Your task to perform on an android device: install app "Microsoft Excel" Image 0: 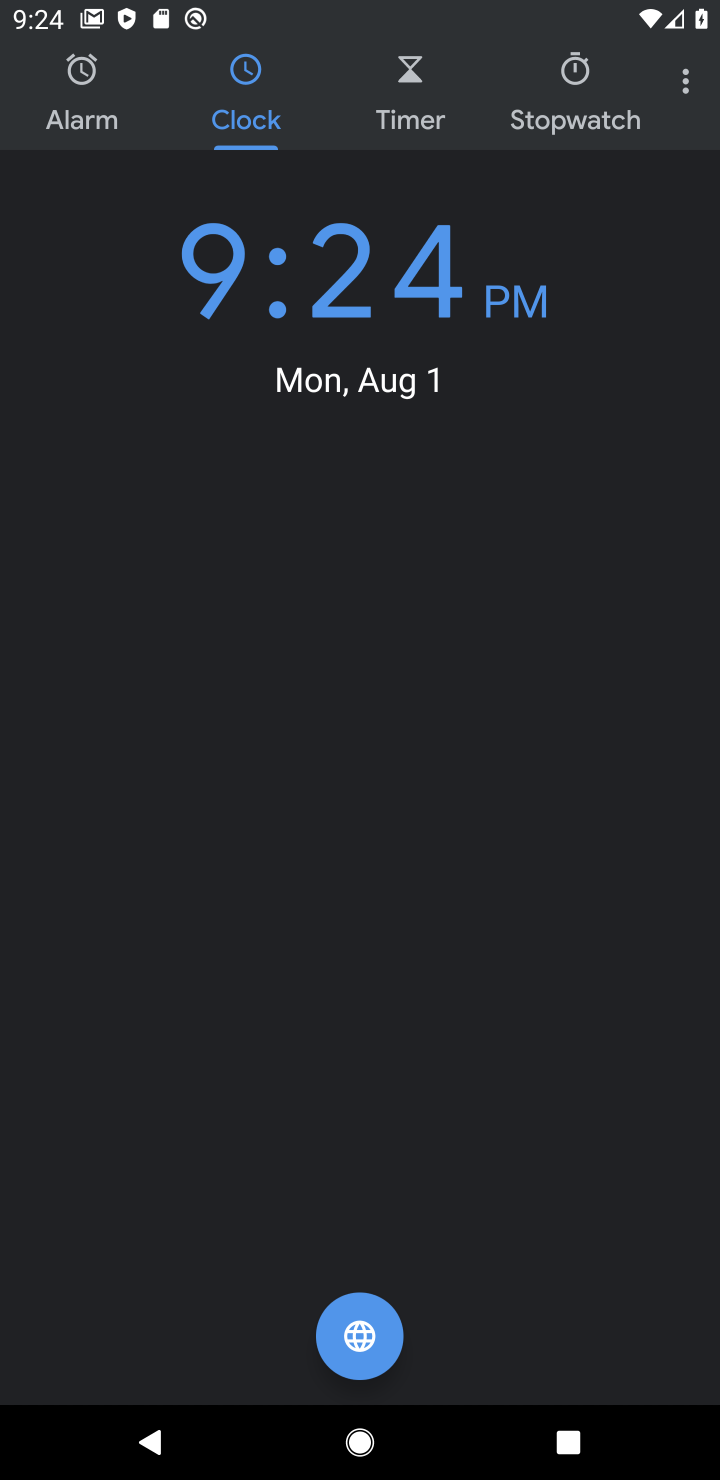
Step 0: press back button
Your task to perform on an android device: install app "Microsoft Excel" Image 1: 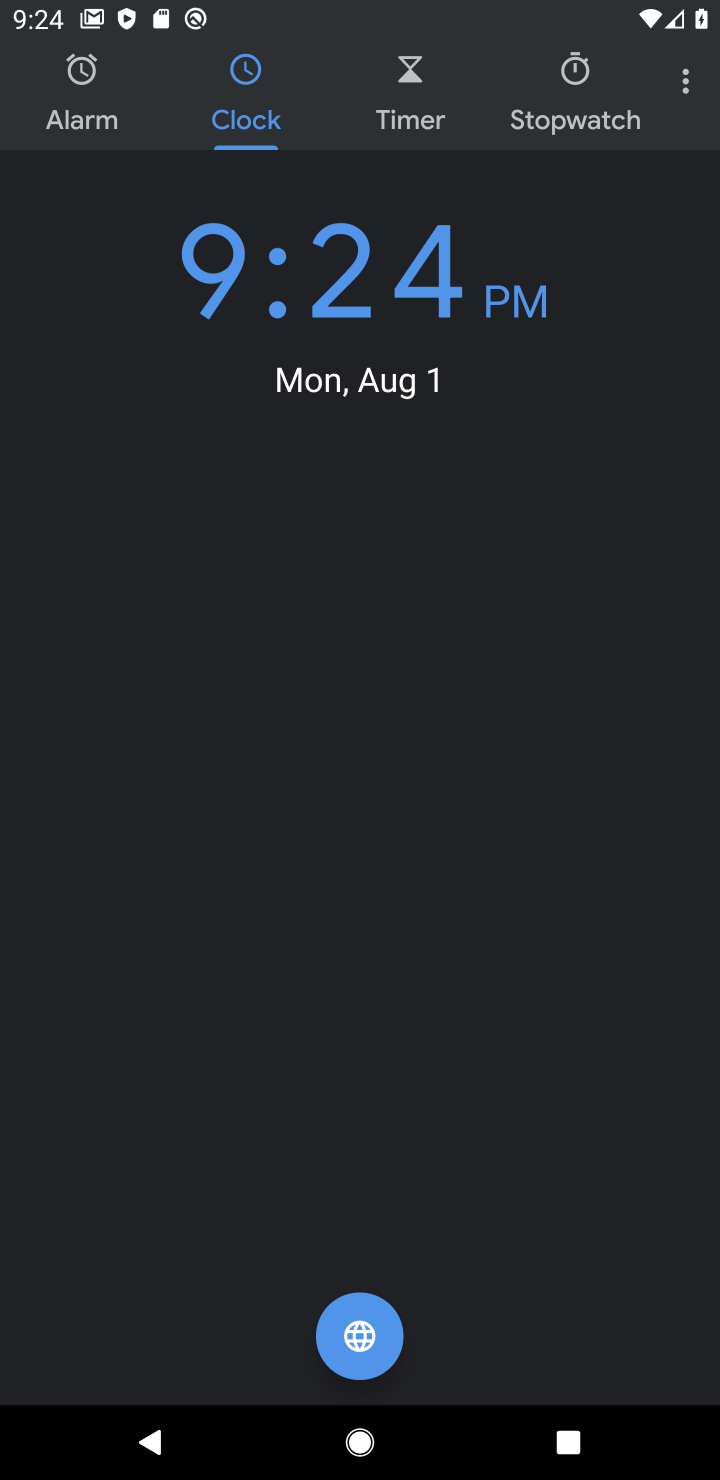
Step 1: press back button
Your task to perform on an android device: install app "Microsoft Excel" Image 2: 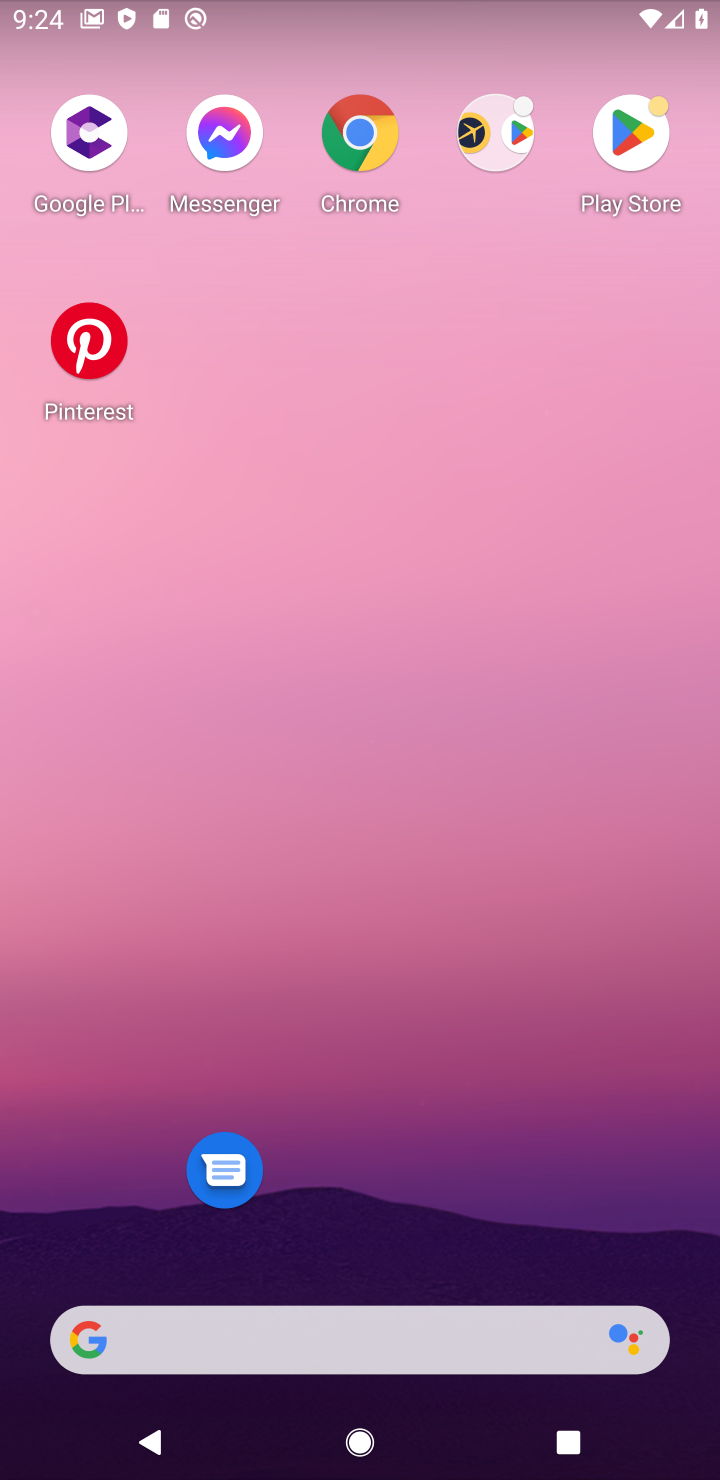
Step 2: drag from (336, 943) to (271, 54)
Your task to perform on an android device: install app "Microsoft Excel" Image 3: 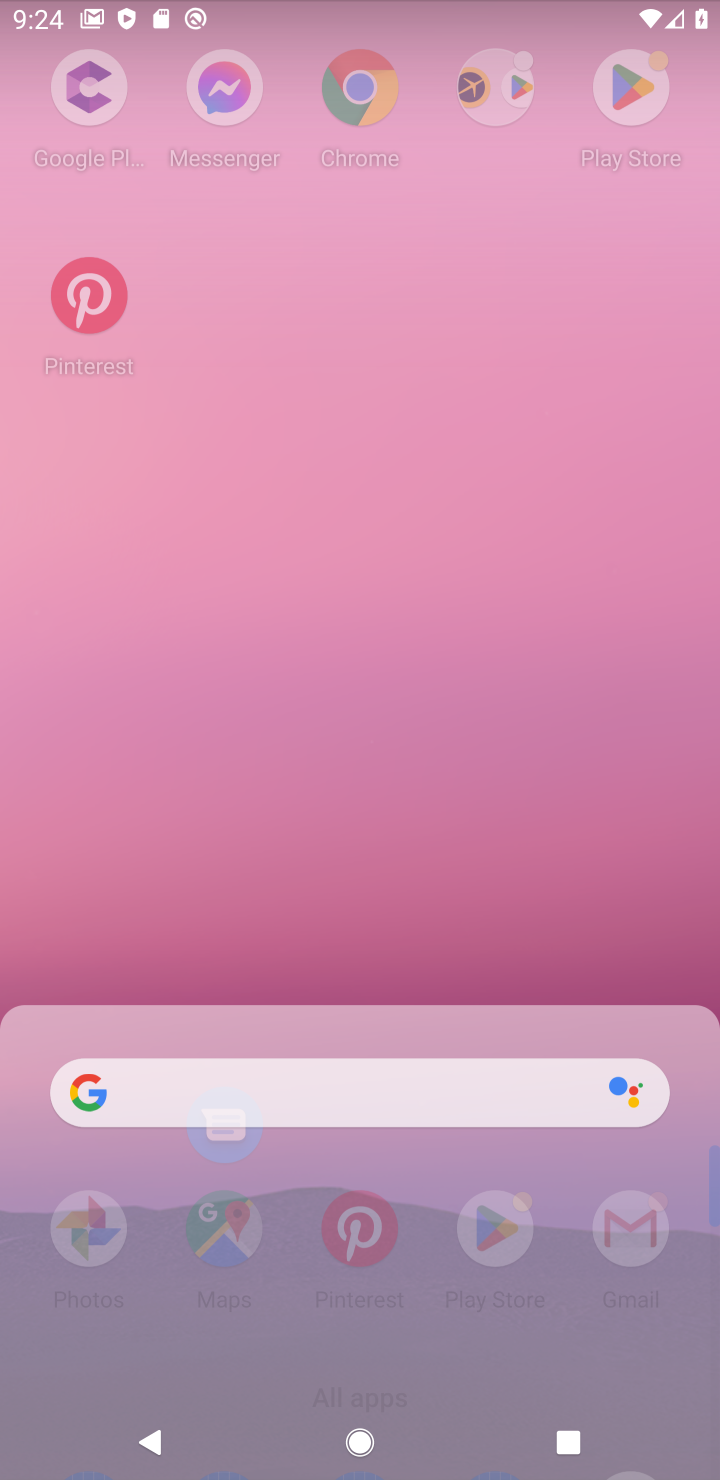
Step 3: click (273, 65)
Your task to perform on an android device: install app "Microsoft Excel" Image 4: 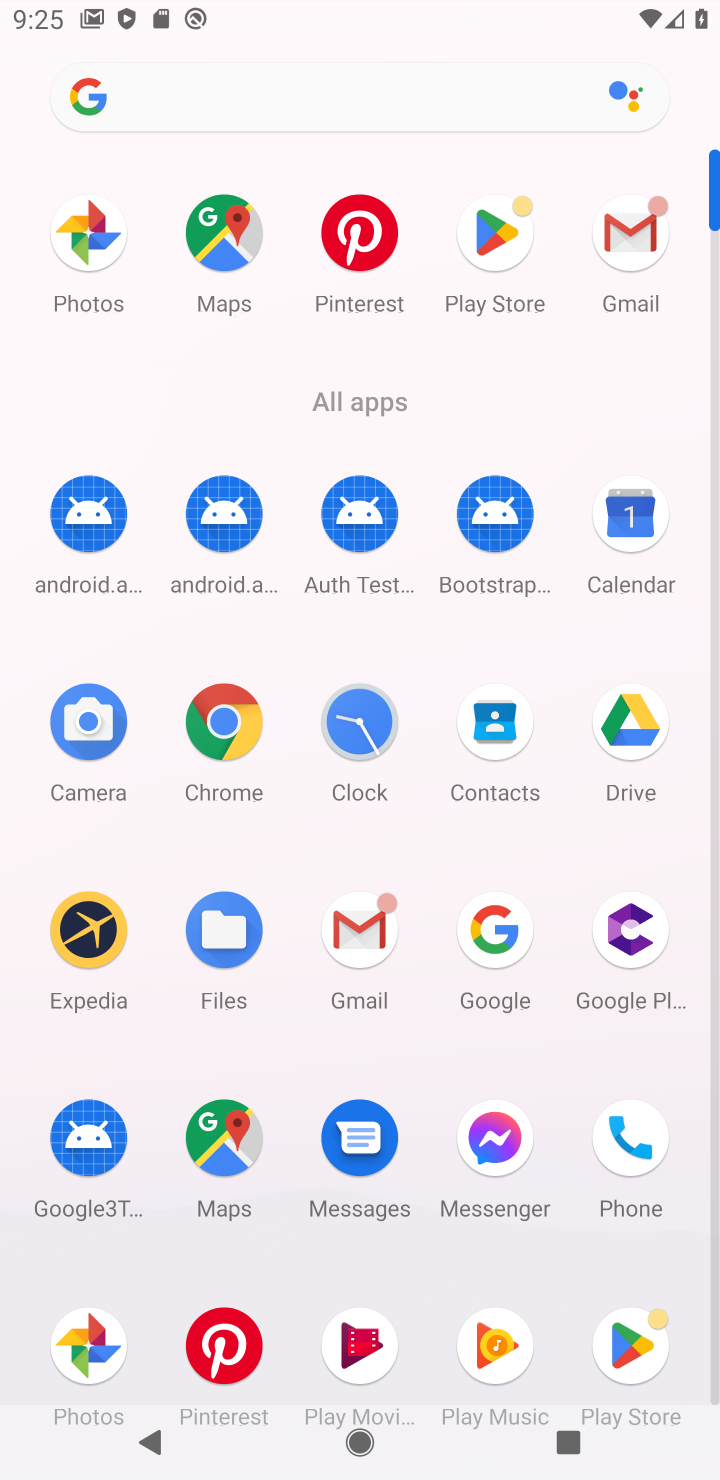
Step 4: drag from (458, 884) to (309, 411)
Your task to perform on an android device: install app "Microsoft Excel" Image 5: 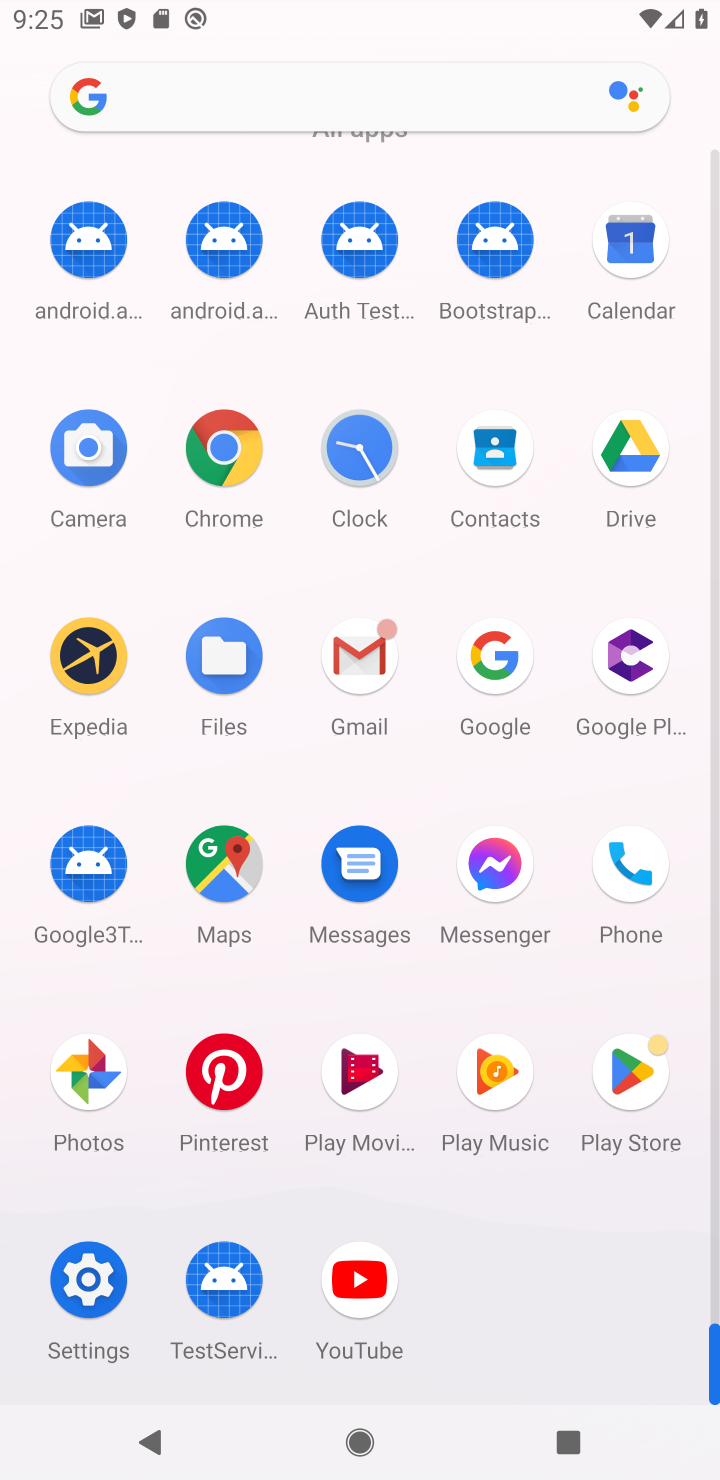
Step 5: click (351, 1188)
Your task to perform on an android device: install app "Microsoft Excel" Image 6: 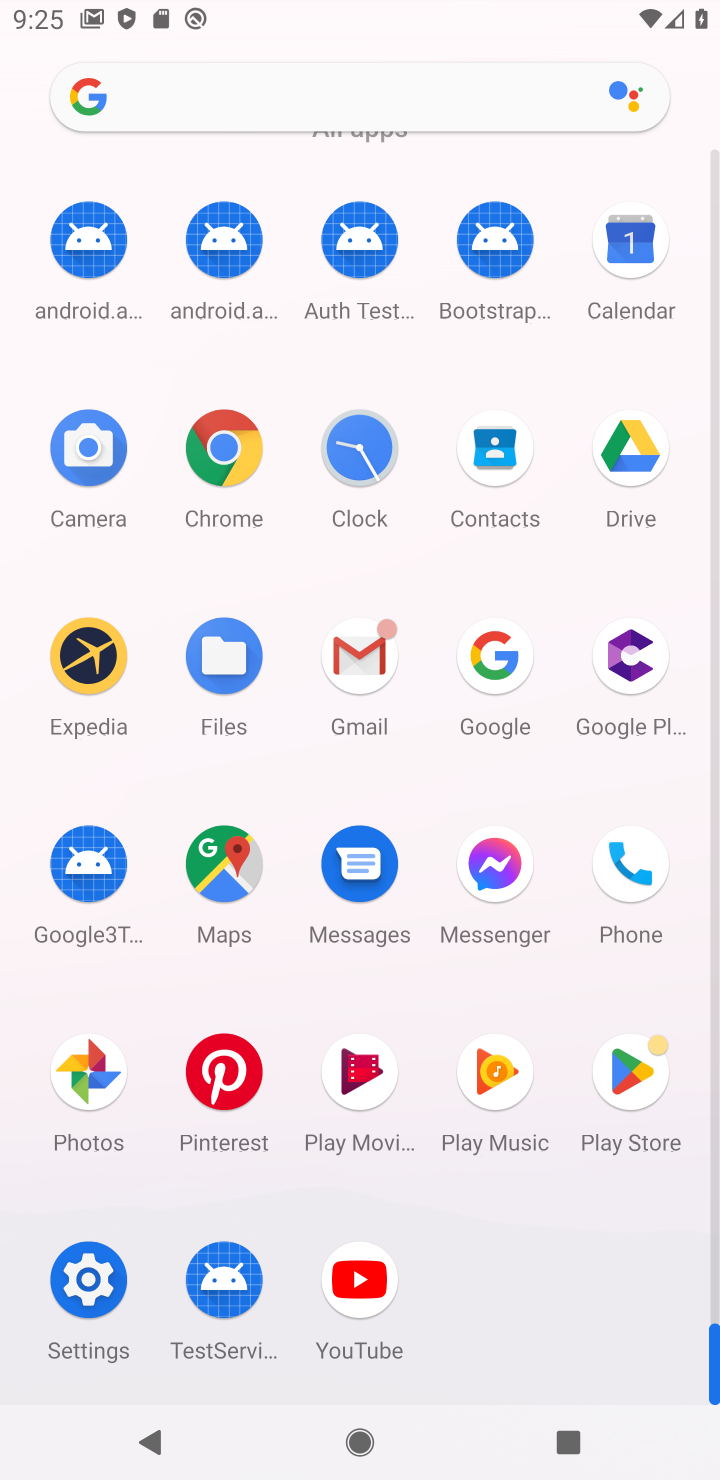
Step 6: click (621, 1074)
Your task to perform on an android device: install app "Microsoft Excel" Image 7: 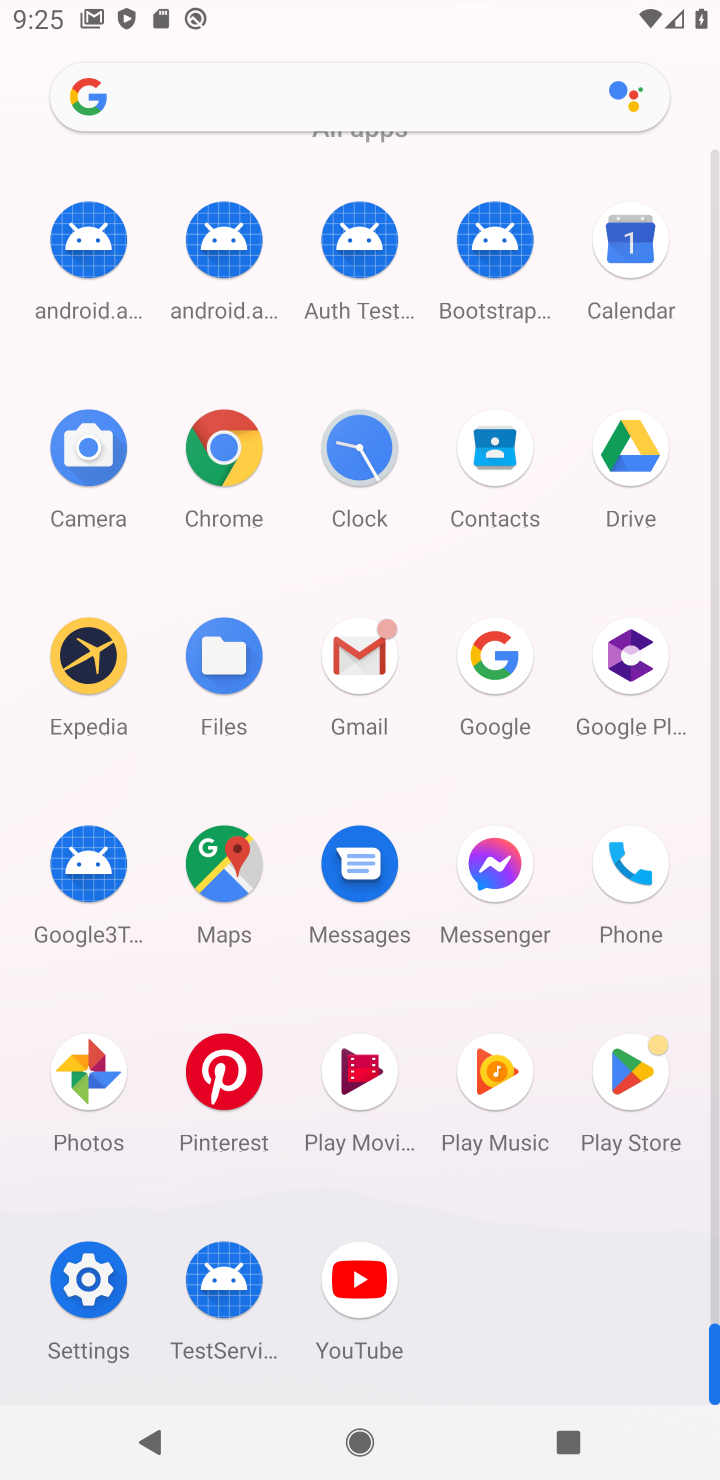
Step 7: click (621, 1074)
Your task to perform on an android device: install app "Microsoft Excel" Image 8: 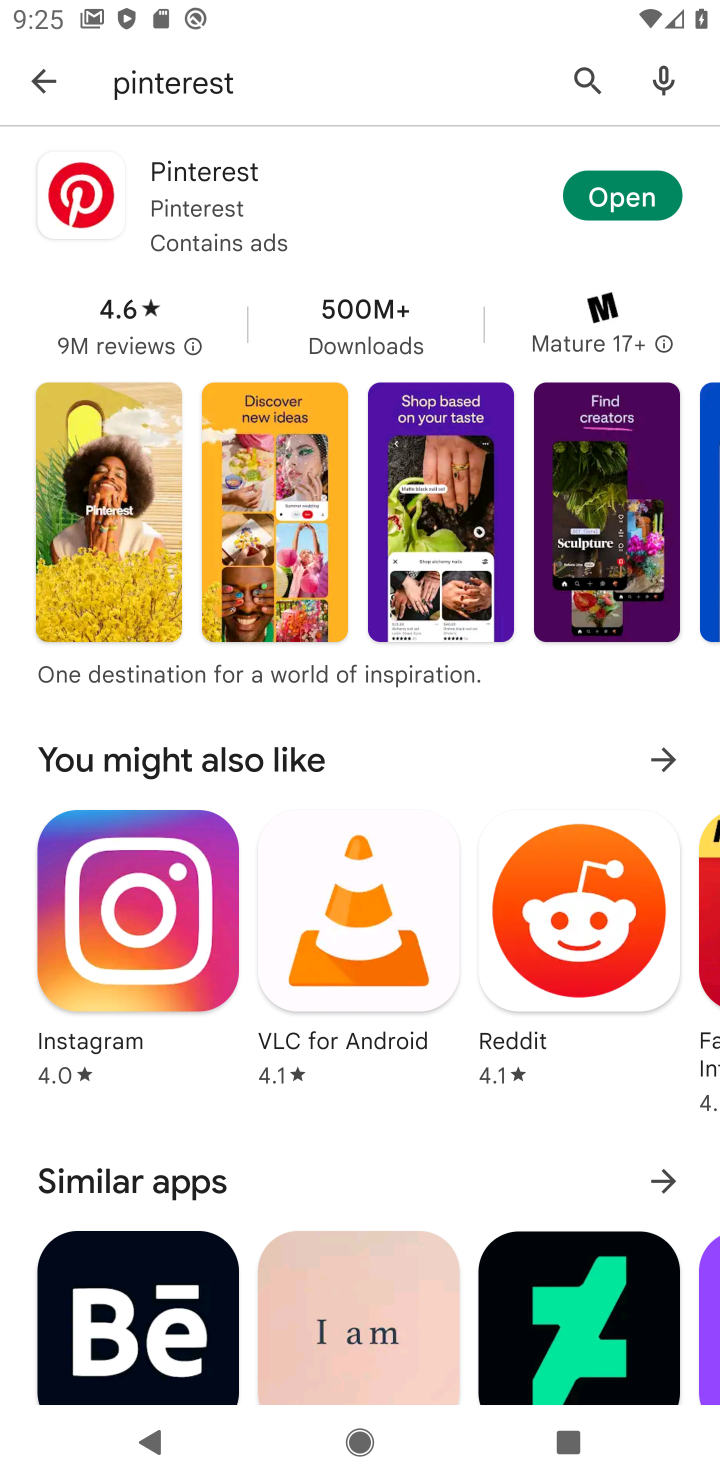
Step 8: drag from (462, 530) to (464, 905)
Your task to perform on an android device: install app "Microsoft Excel" Image 9: 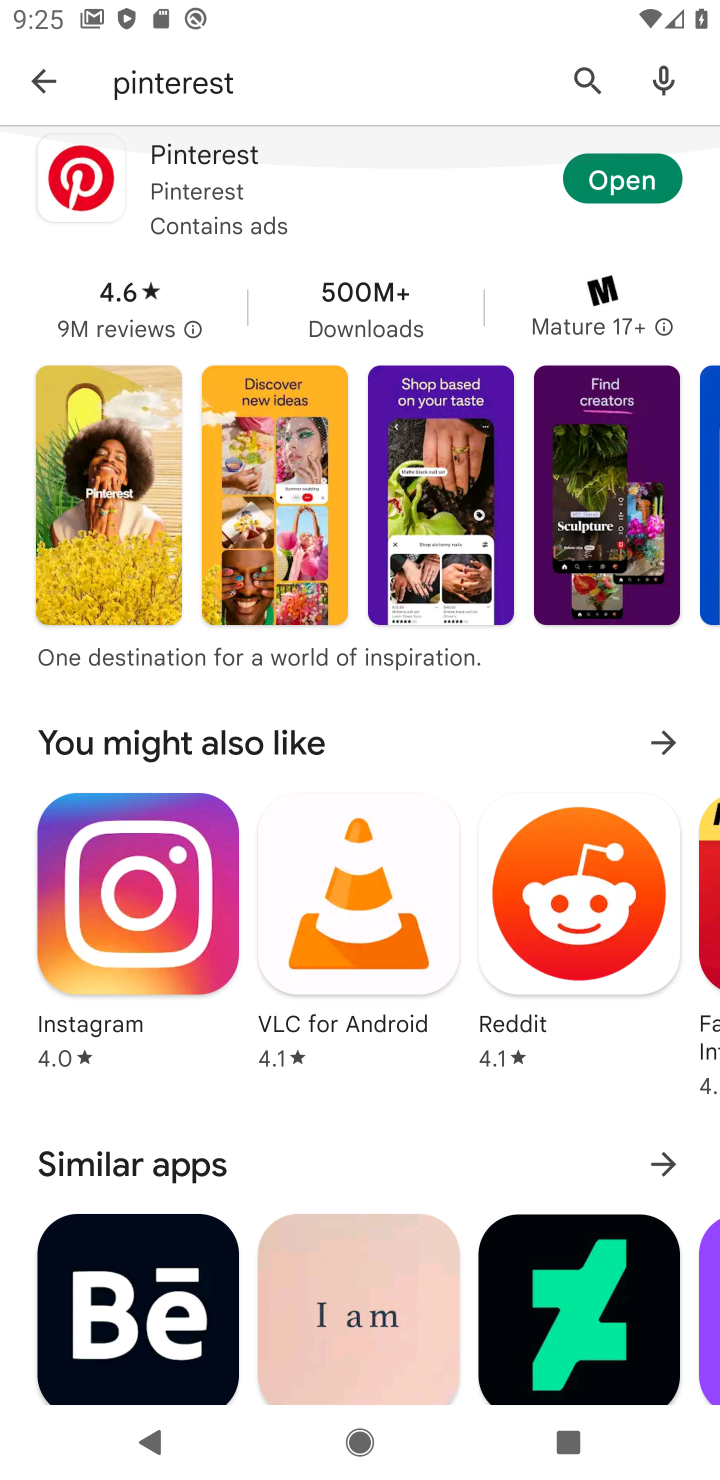
Step 9: click (56, 72)
Your task to perform on an android device: install app "Microsoft Excel" Image 10: 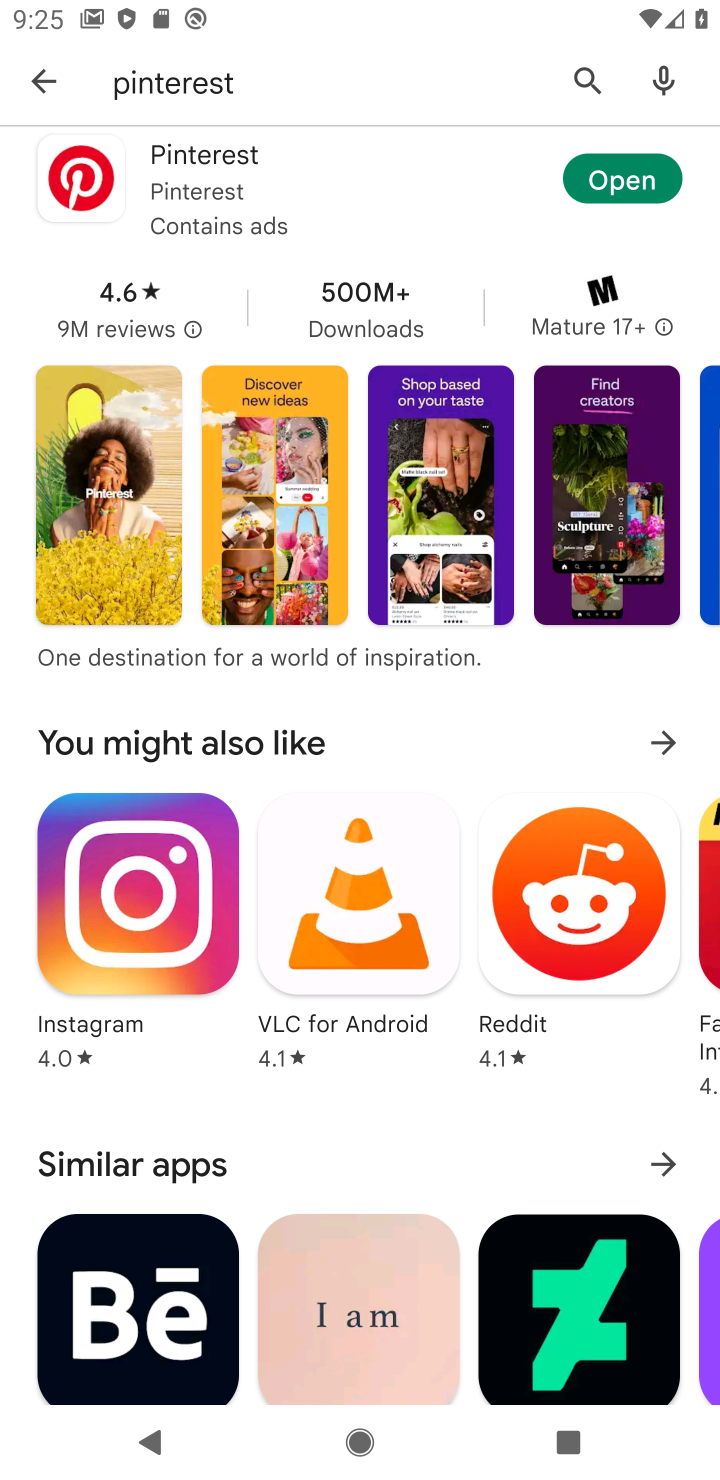
Step 10: click (305, 87)
Your task to perform on an android device: install app "Microsoft Excel" Image 11: 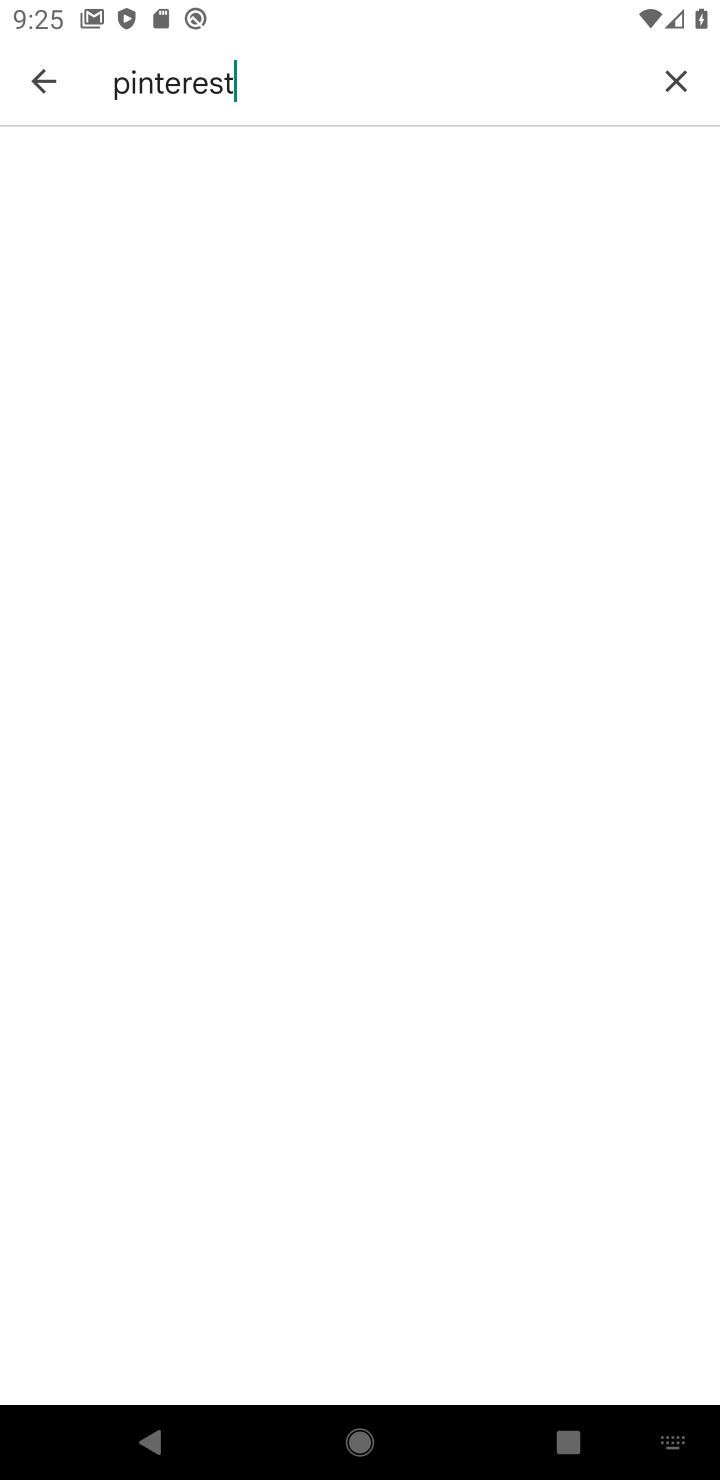
Step 11: click (675, 74)
Your task to perform on an android device: install app "Microsoft Excel" Image 12: 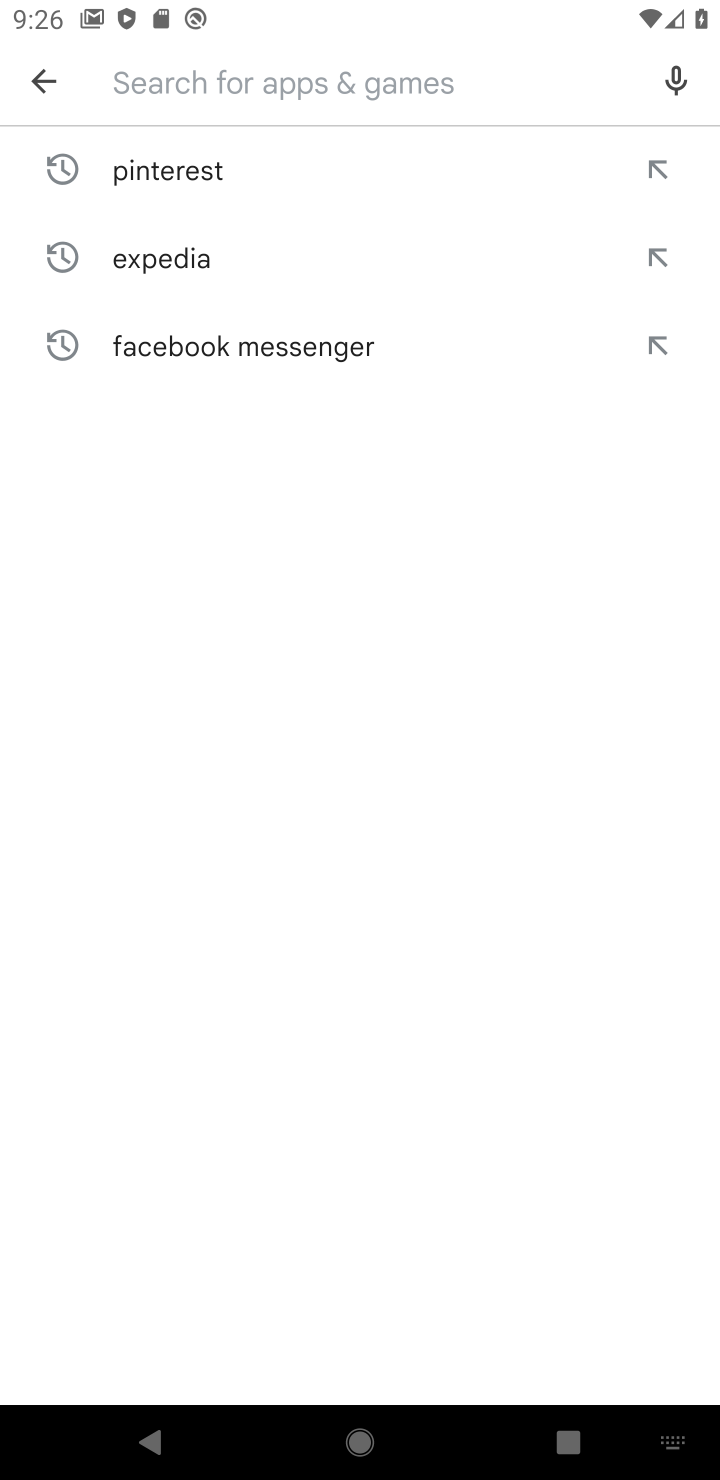
Step 12: type "Microsoft excel"
Your task to perform on an android device: install app "Microsoft Excel" Image 13: 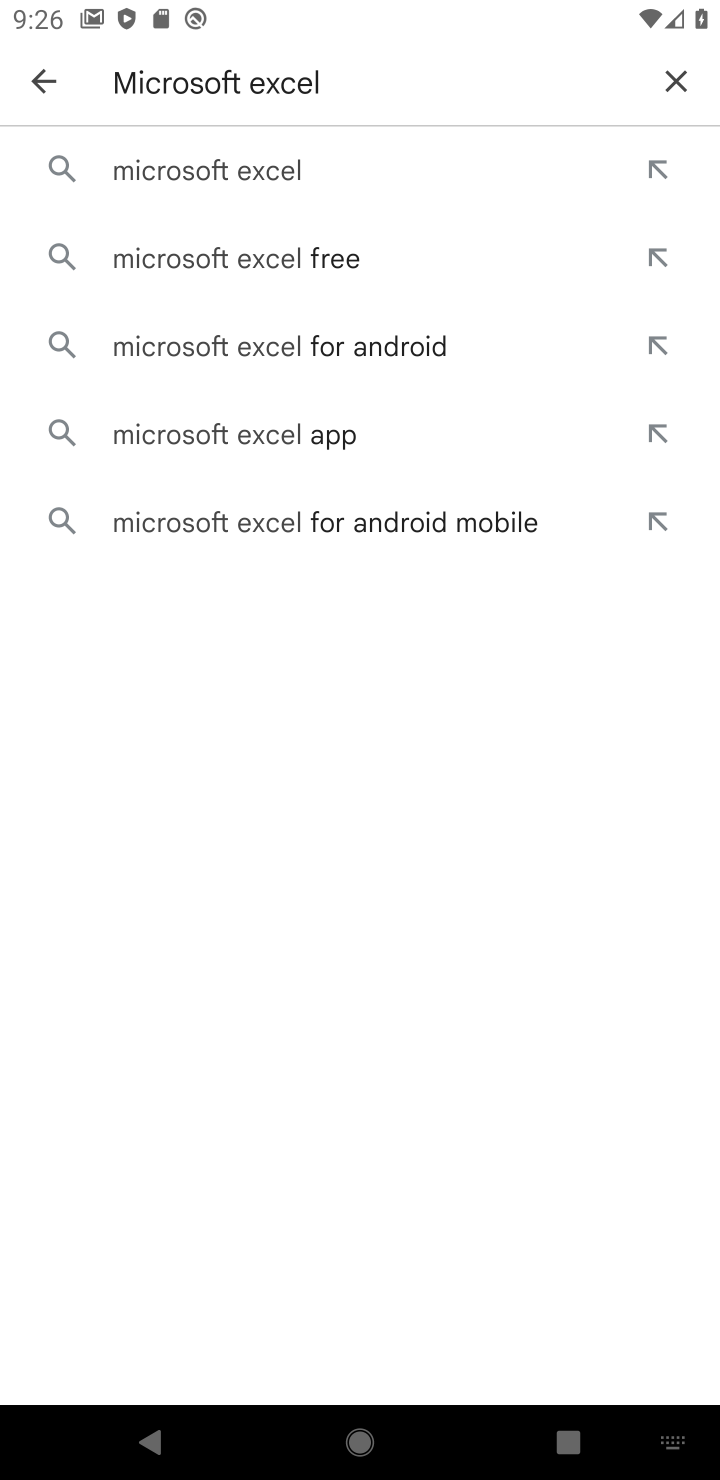
Step 13: click (131, 177)
Your task to perform on an android device: install app "Microsoft Excel" Image 14: 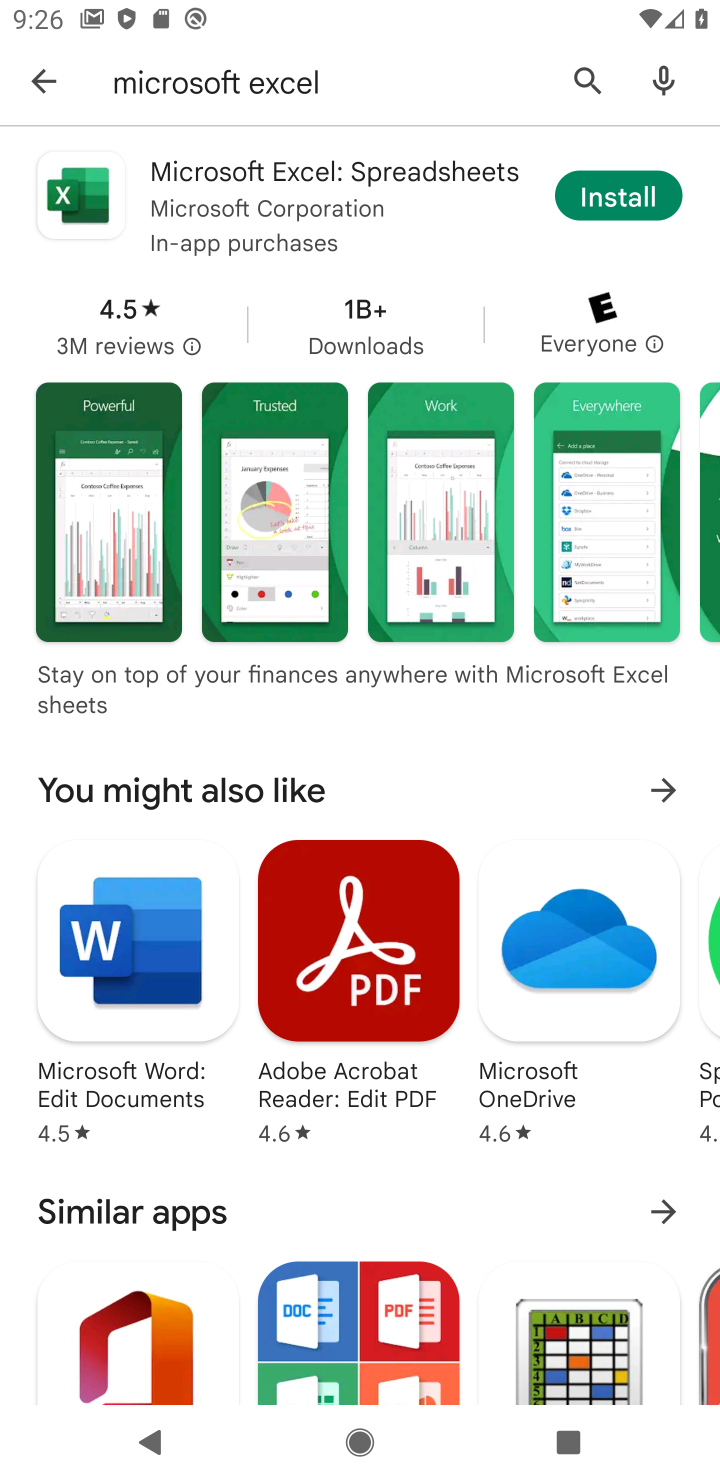
Step 14: click (615, 199)
Your task to perform on an android device: install app "Microsoft Excel" Image 15: 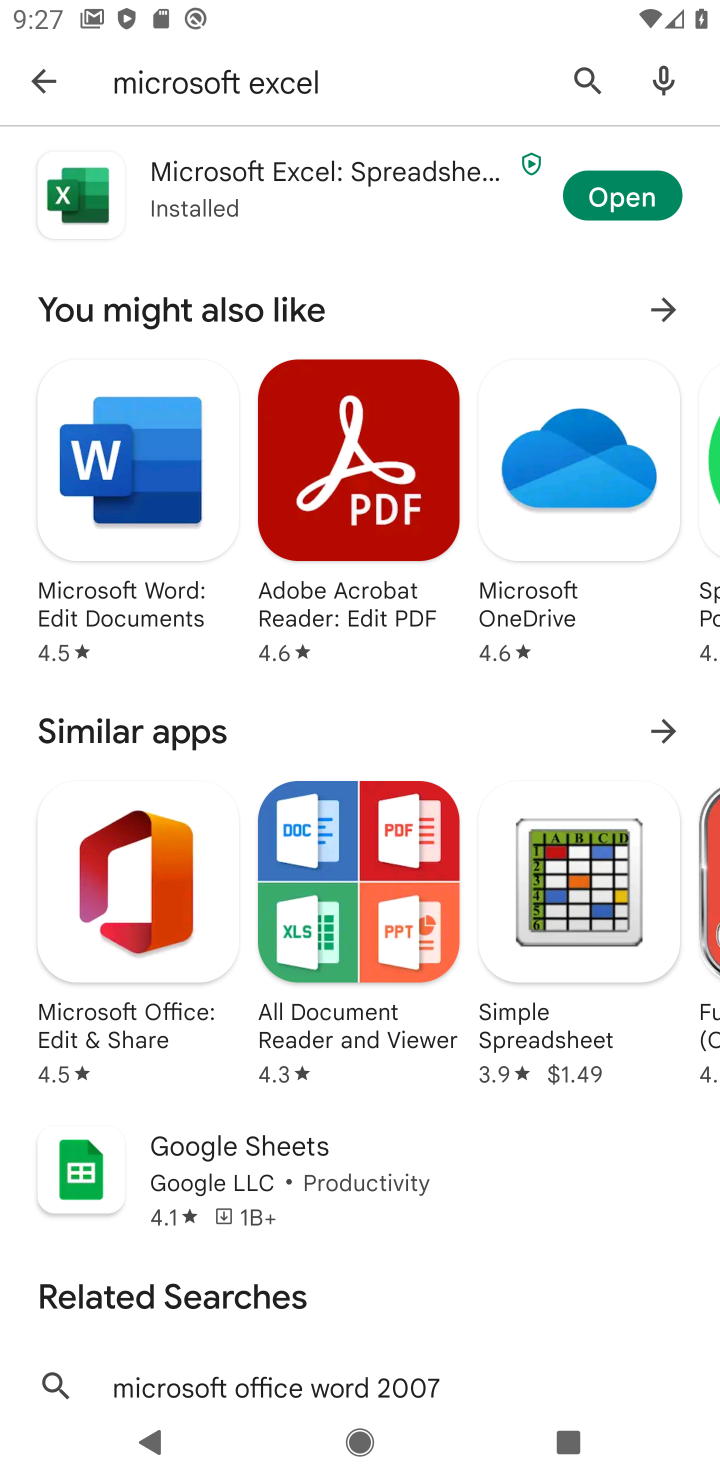
Step 15: click (602, 212)
Your task to perform on an android device: install app "Microsoft Excel" Image 16: 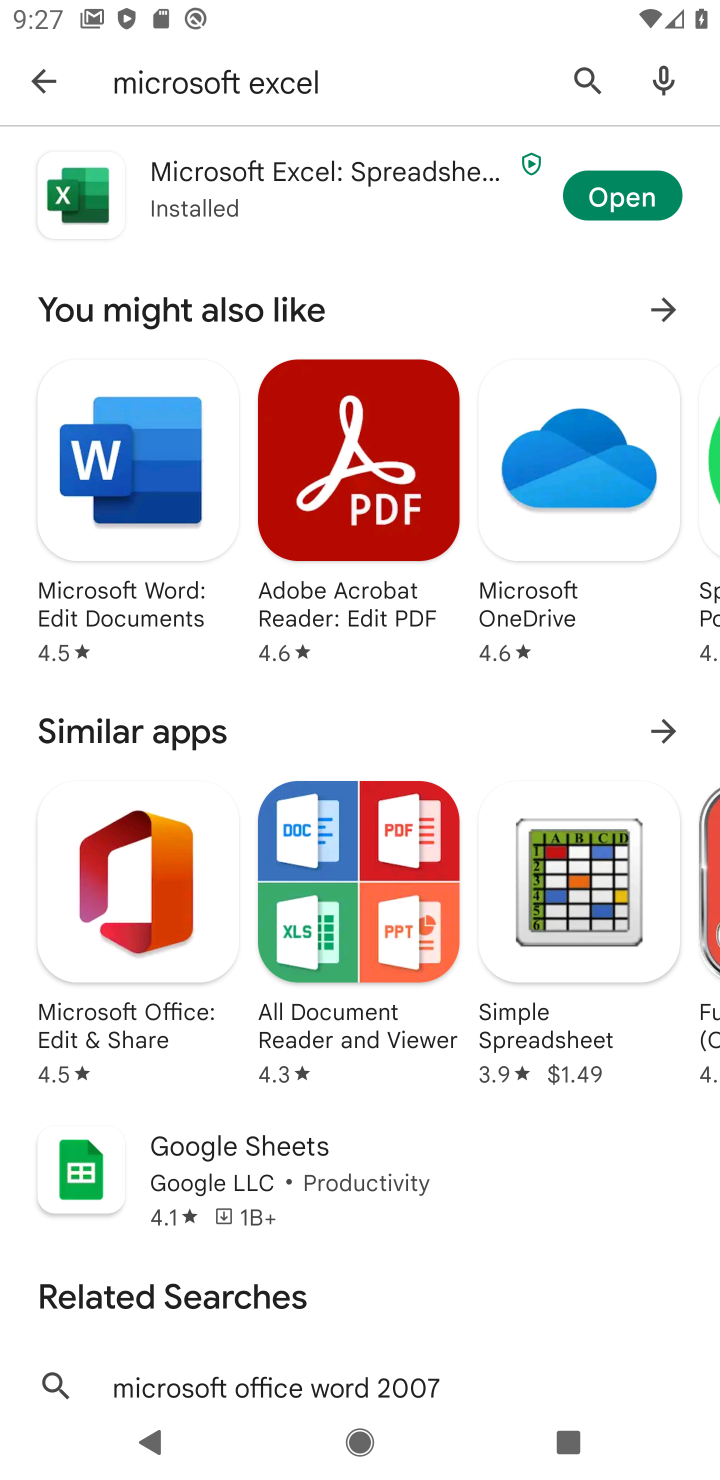
Step 16: click (602, 212)
Your task to perform on an android device: install app "Microsoft Excel" Image 17: 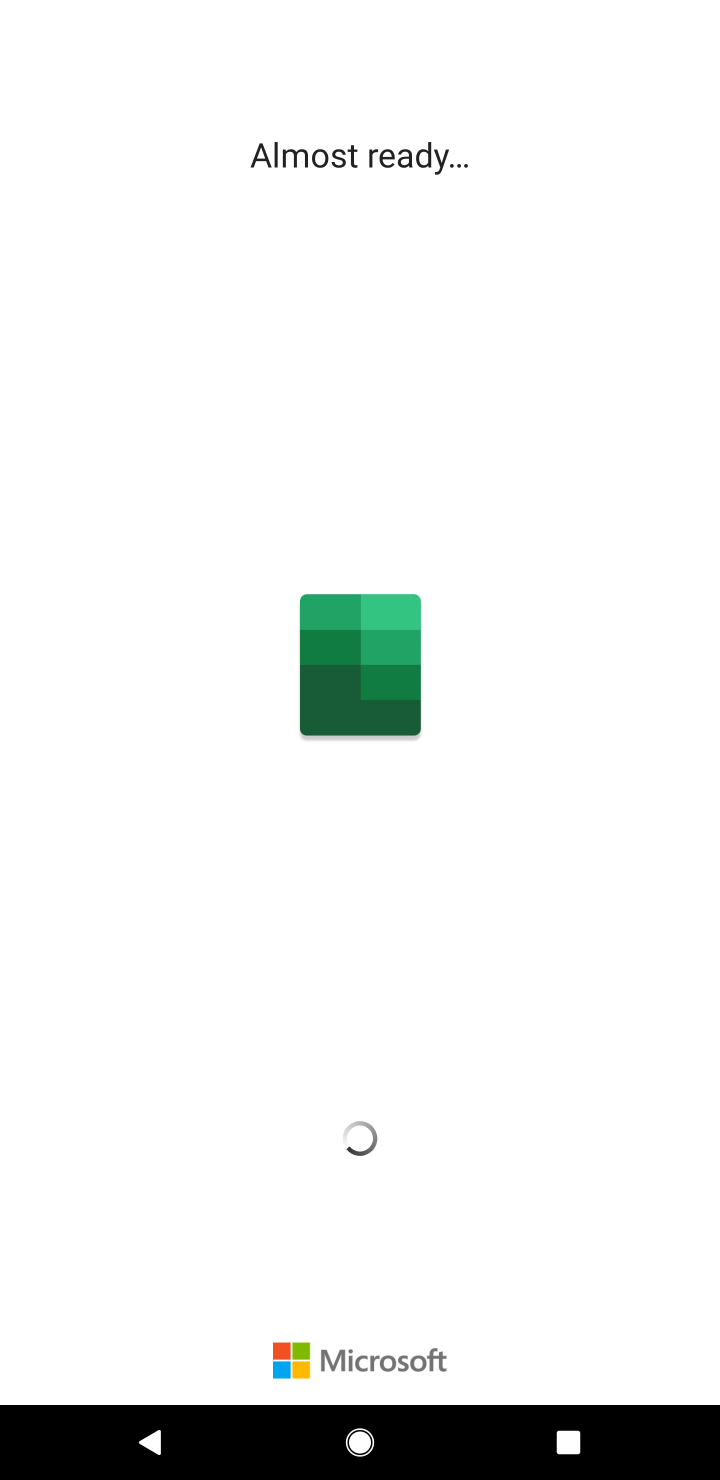
Step 17: task complete